Your task to perform on an android device: Add usb-c to the cart on amazon.com, then select checkout. Image 0: 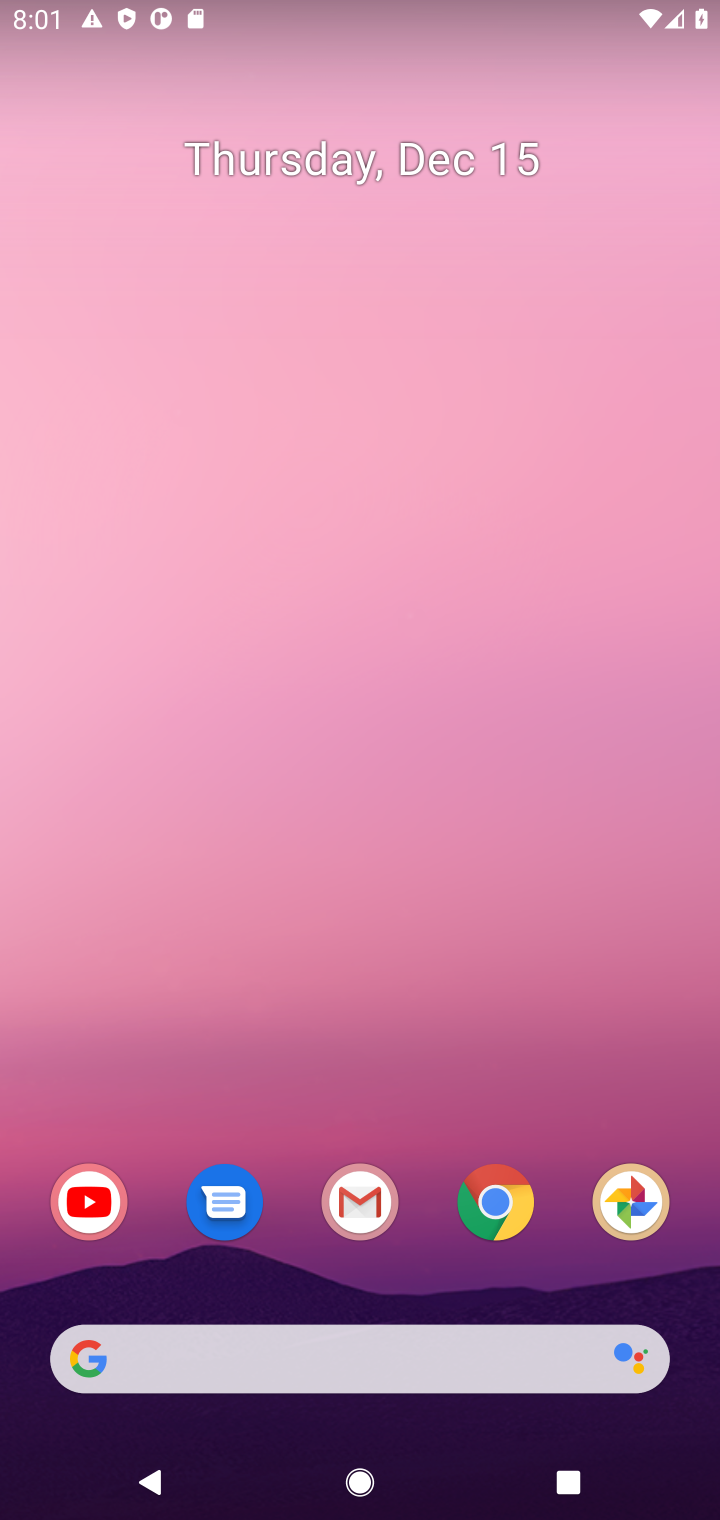
Step 0: click (503, 1221)
Your task to perform on an android device: Add usb-c to the cart on amazon.com, then select checkout. Image 1: 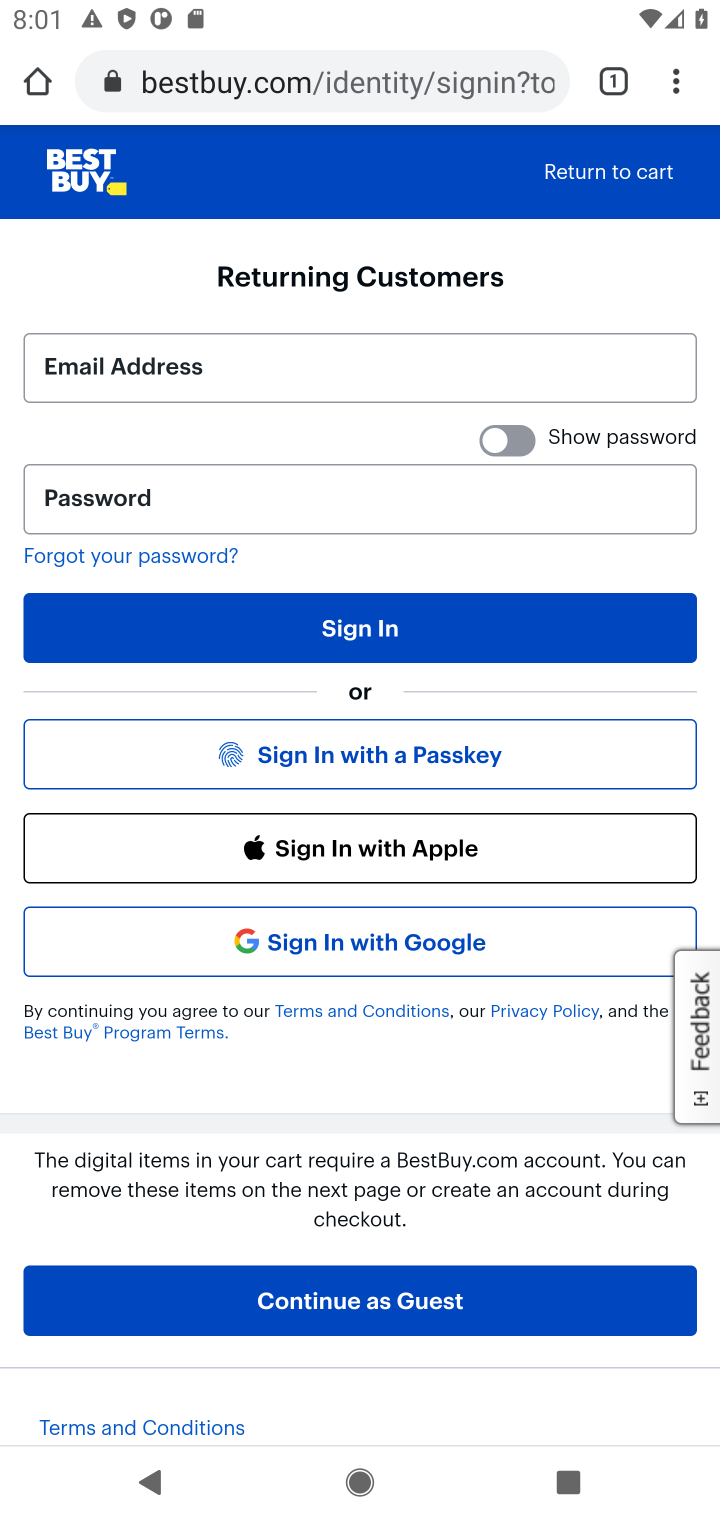
Step 1: click (228, 77)
Your task to perform on an android device: Add usb-c to the cart on amazon.com, then select checkout. Image 2: 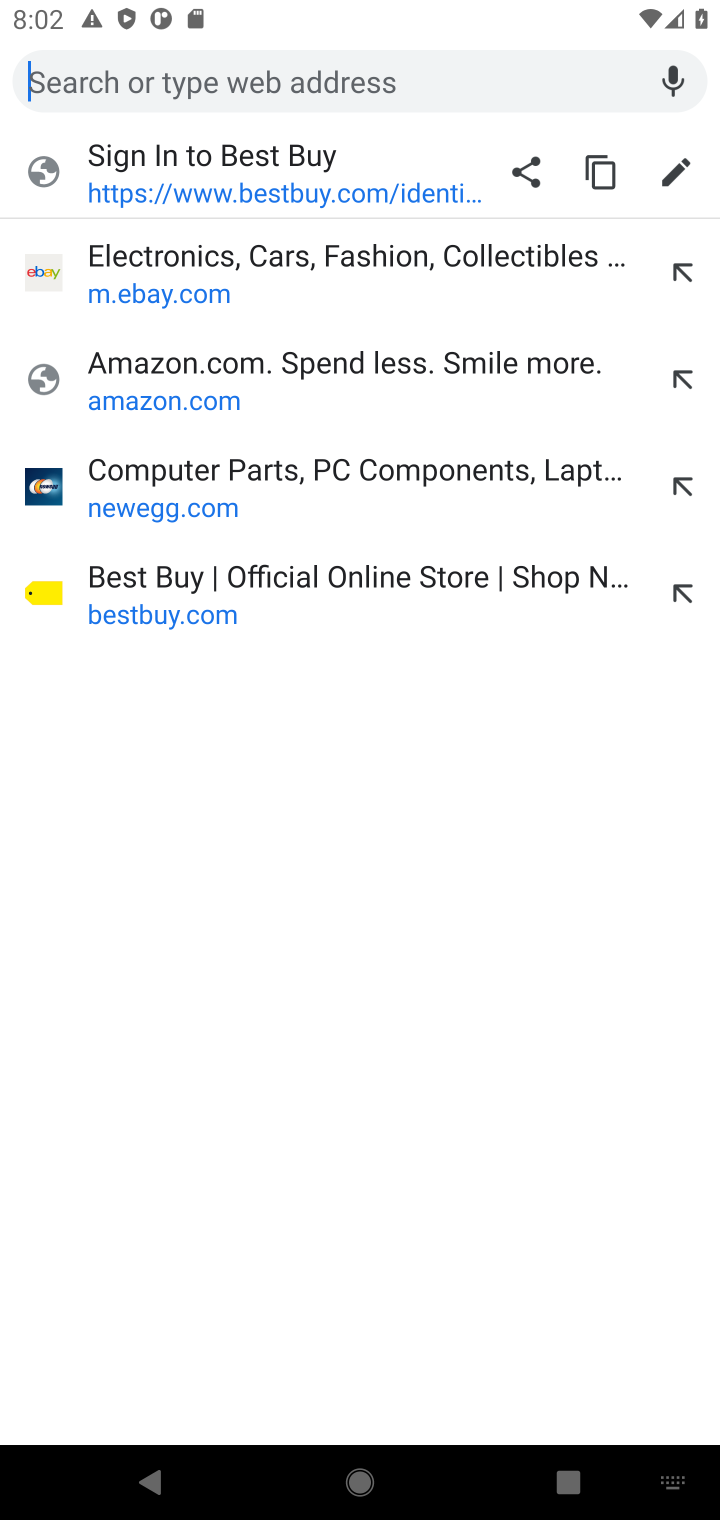
Step 2: click (128, 368)
Your task to perform on an android device: Add usb-c to the cart on amazon.com, then select checkout. Image 3: 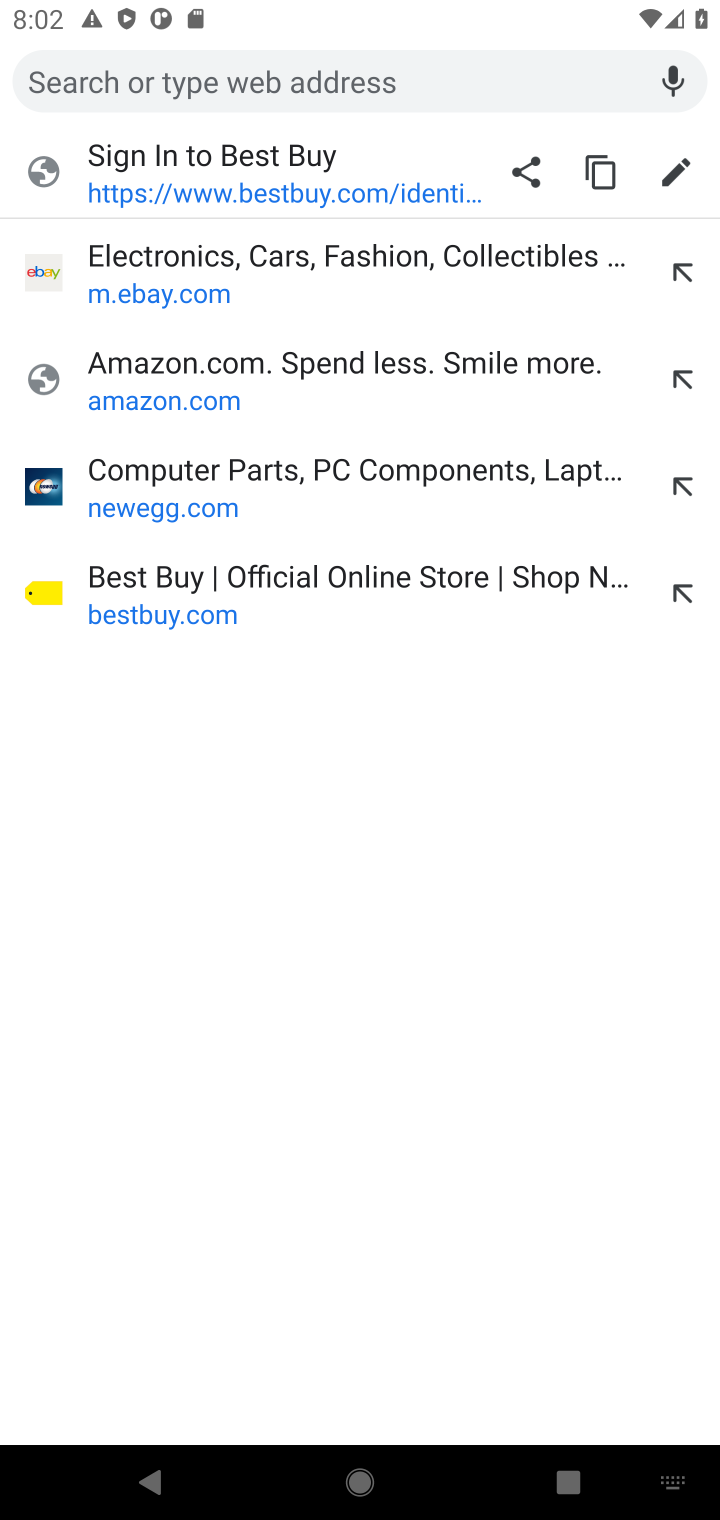
Step 3: click (157, 402)
Your task to perform on an android device: Add usb-c to the cart on amazon.com, then select checkout. Image 4: 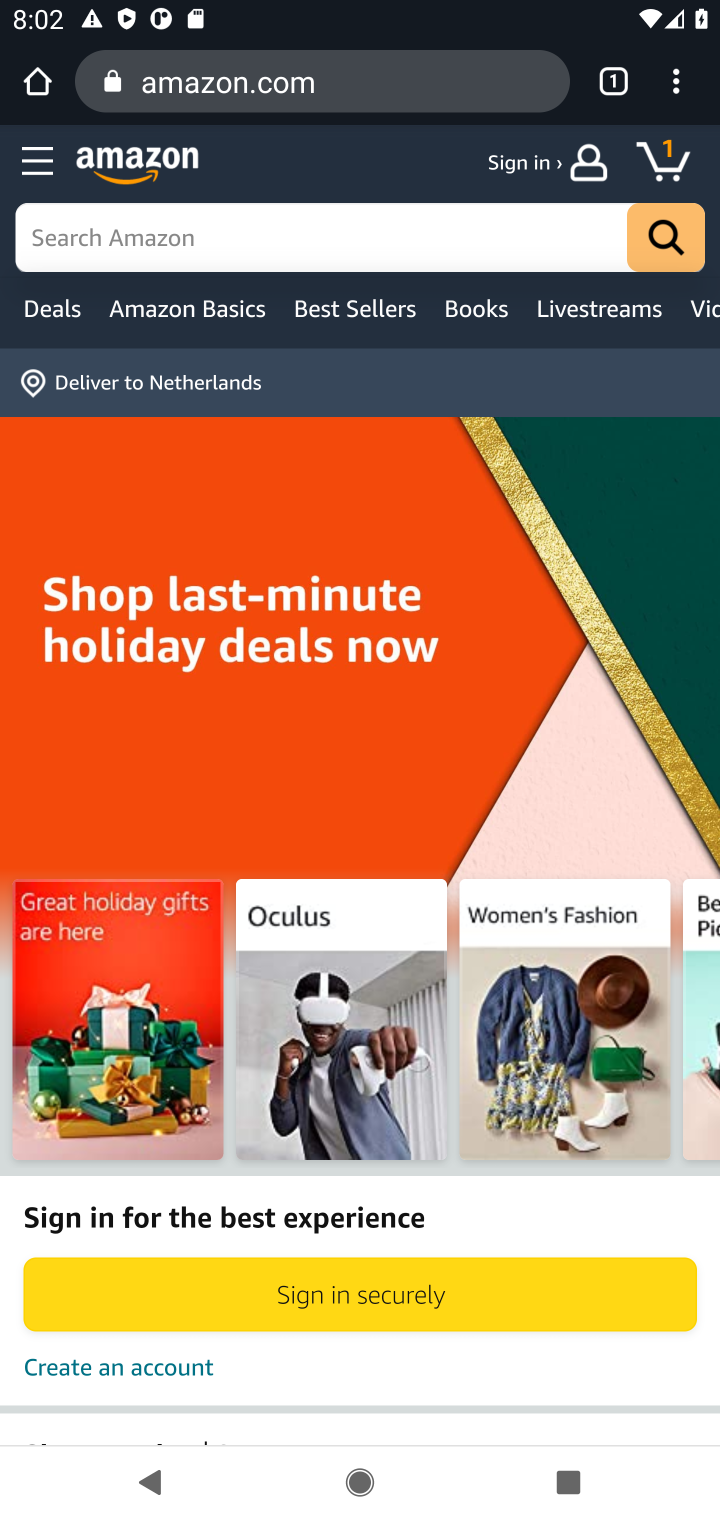
Step 4: click (165, 241)
Your task to perform on an android device: Add usb-c to the cart on amazon.com, then select checkout. Image 5: 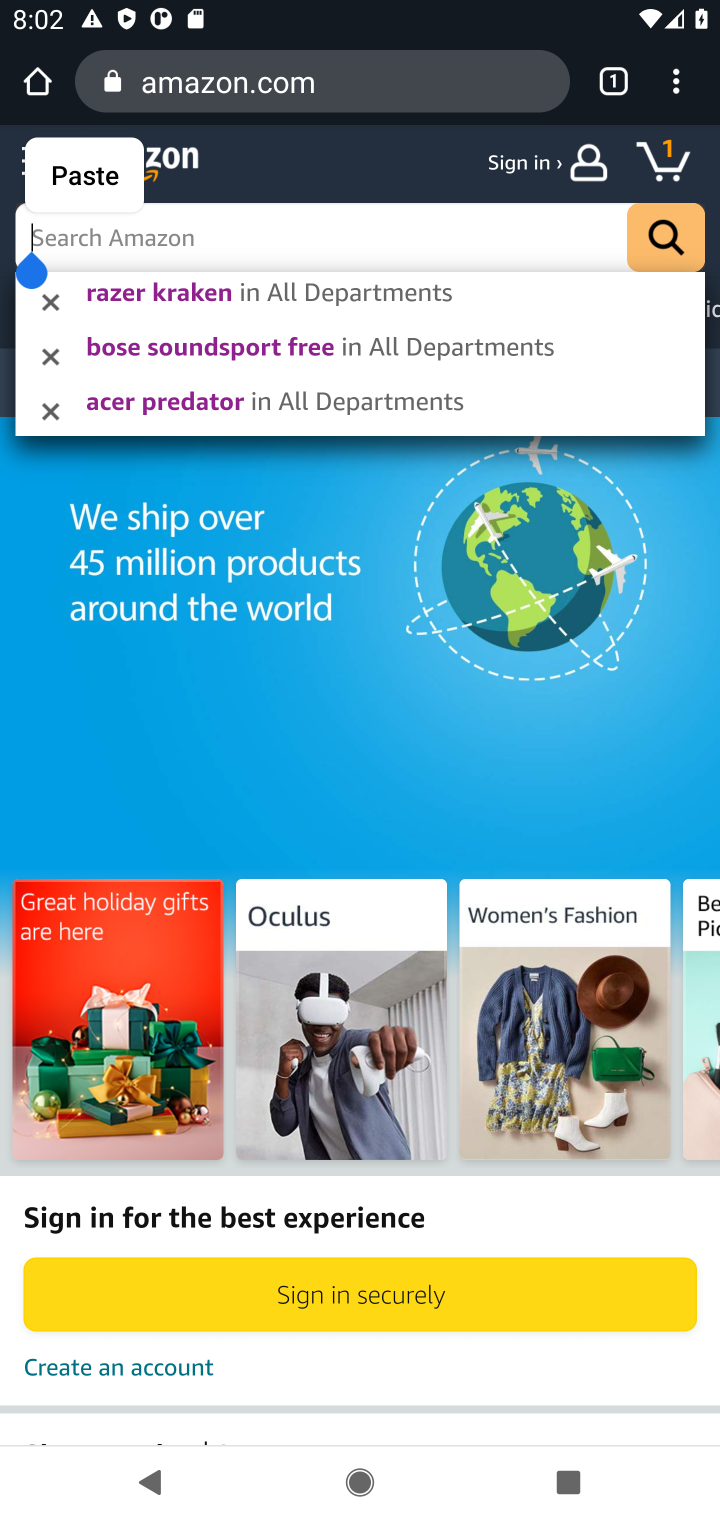
Step 5: type "usb-c"
Your task to perform on an android device: Add usb-c to the cart on amazon.com, then select checkout. Image 6: 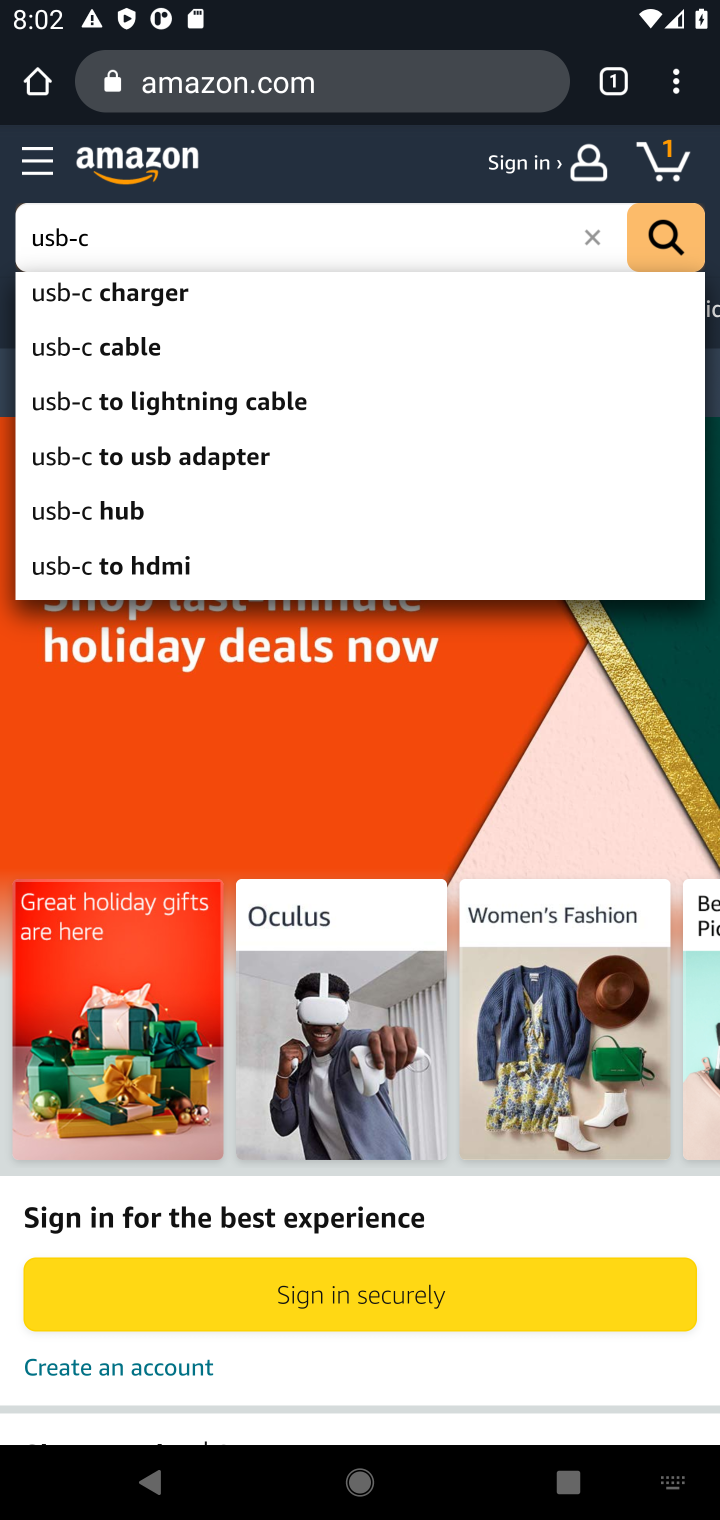
Step 6: click (79, 293)
Your task to perform on an android device: Add usb-c to the cart on amazon.com, then select checkout. Image 7: 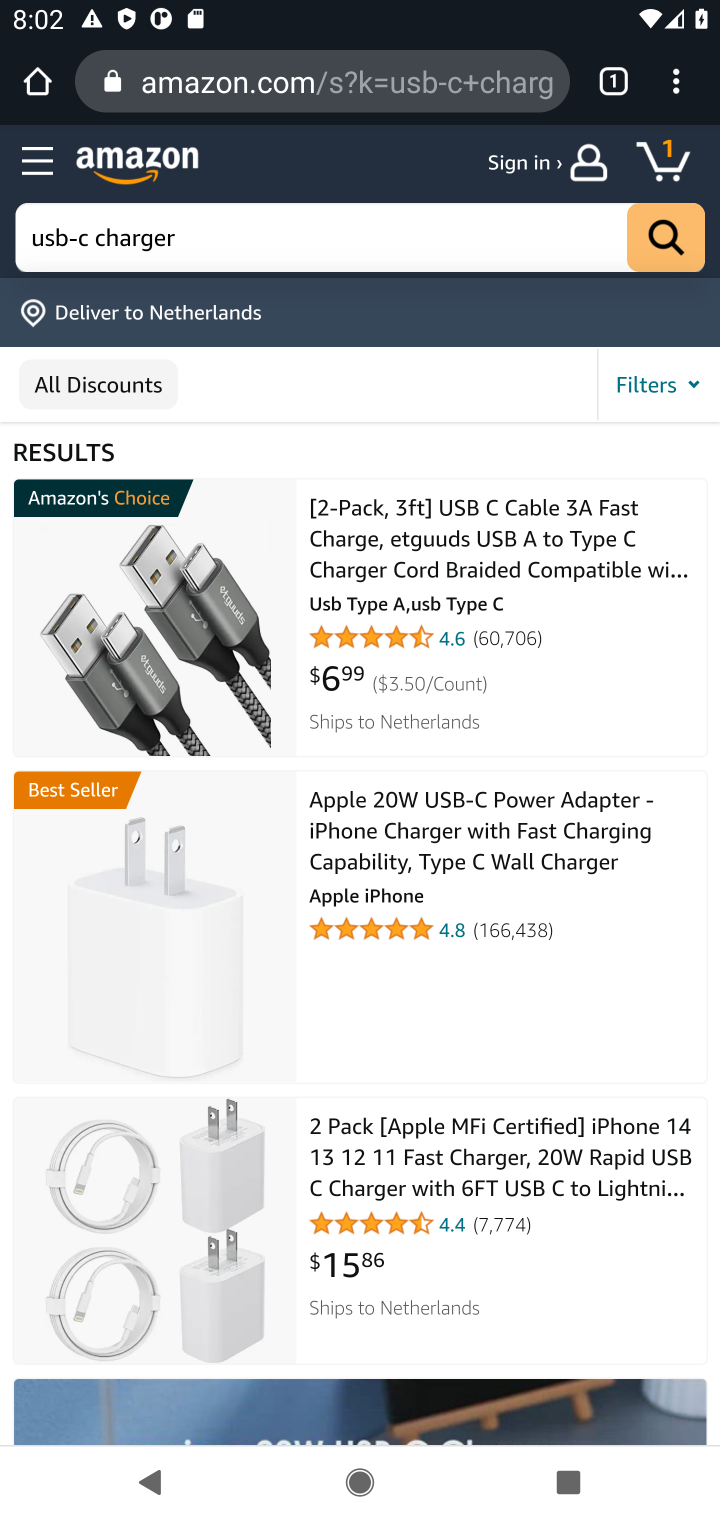
Step 7: click (437, 565)
Your task to perform on an android device: Add usb-c to the cart on amazon.com, then select checkout. Image 8: 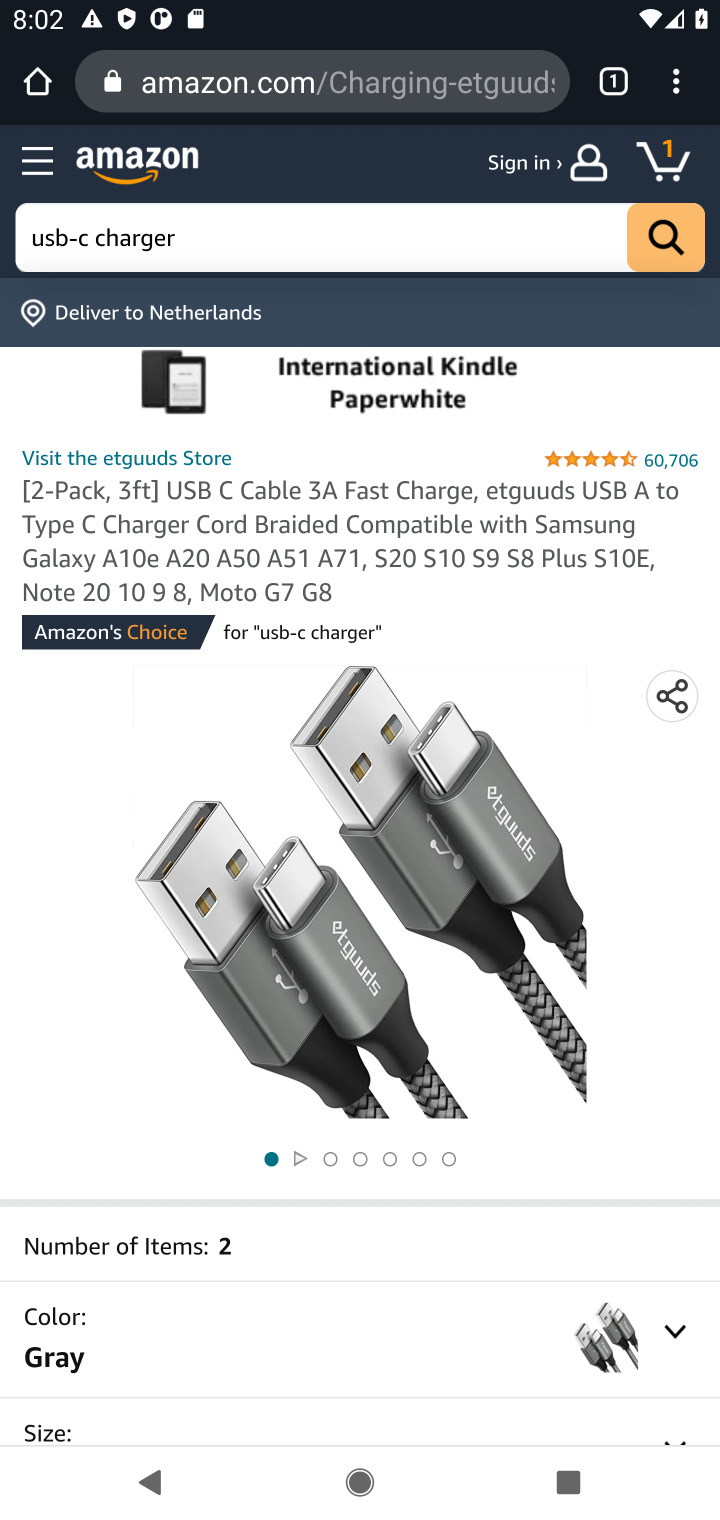
Step 8: drag from (215, 908) to (196, 525)
Your task to perform on an android device: Add usb-c to the cart on amazon.com, then select checkout. Image 9: 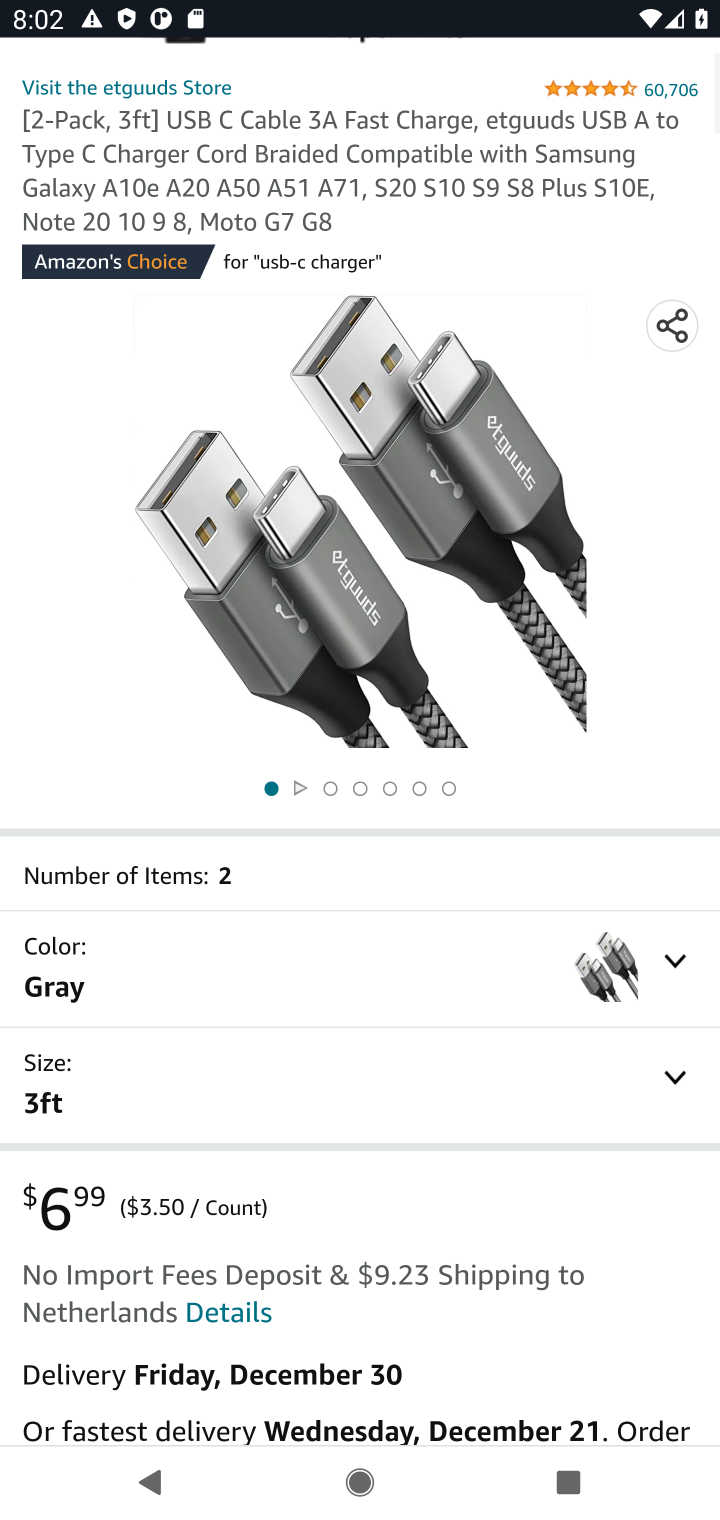
Step 9: drag from (207, 992) to (253, 452)
Your task to perform on an android device: Add usb-c to the cart on amazon.com, then select checkout. Image 10: 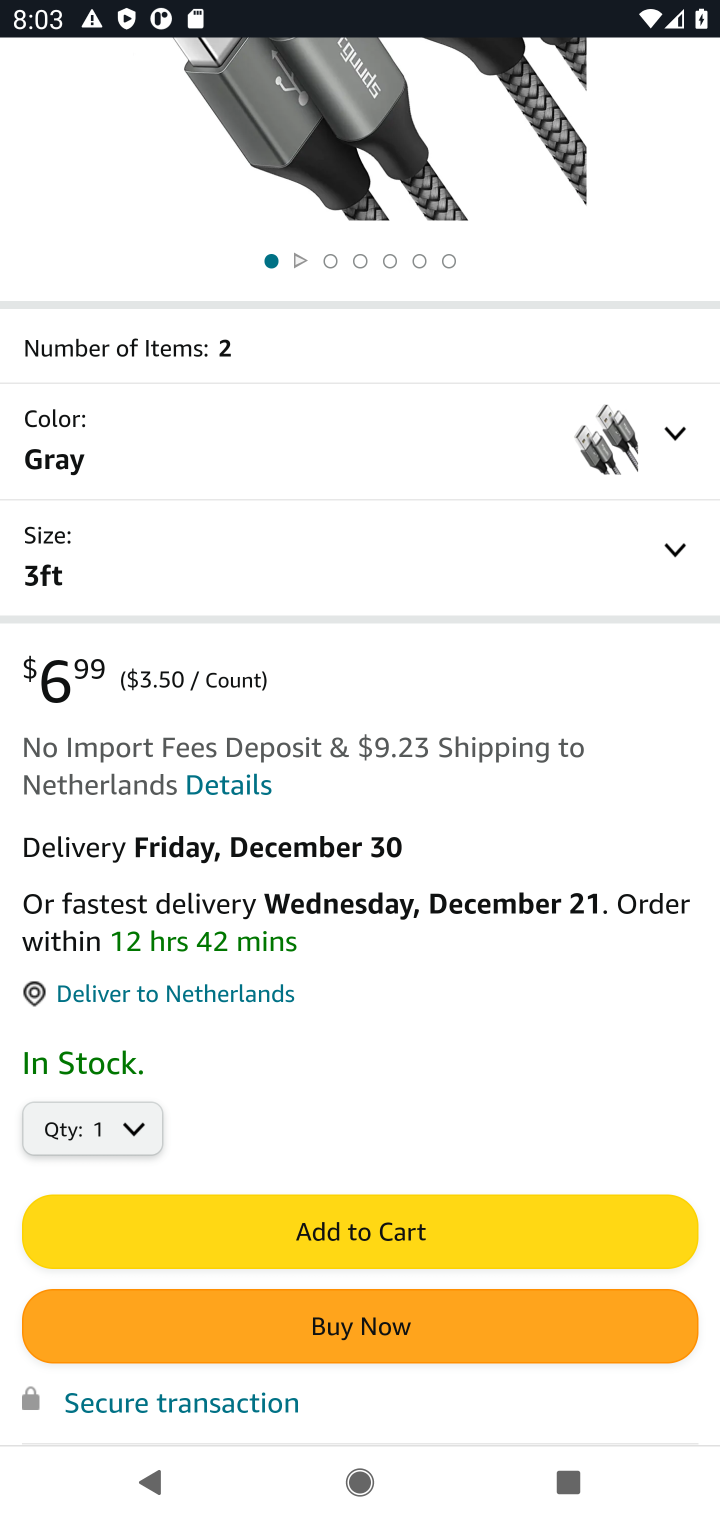
Step 10: click (369, 1213)
Your task to perform on an android device: Add usb-c to the cart on amazon.com, then select checkout. Image 11: 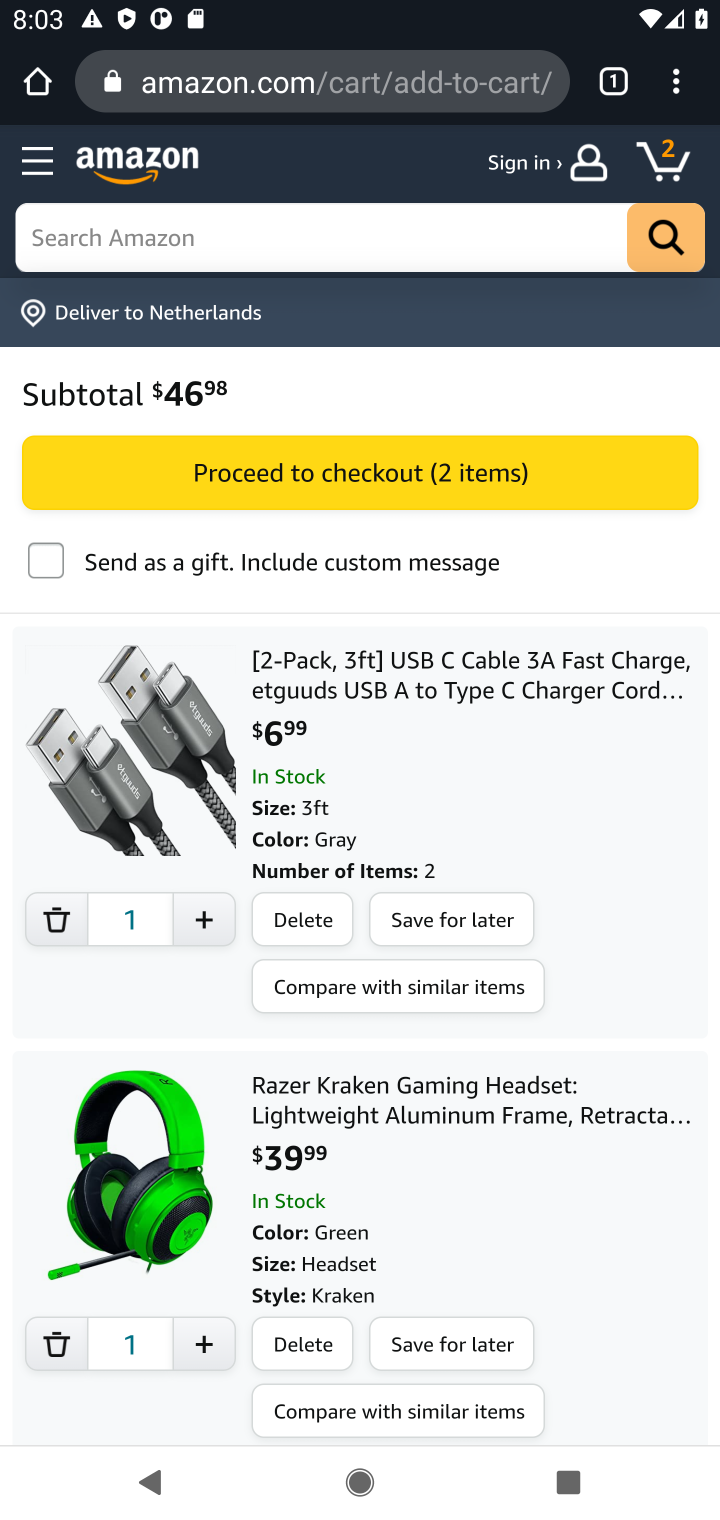
Step 11: click (290, 465)
Your task to perform on an android device: Add usb-c to the cart on amazon.com, then select checkout. Image 12: 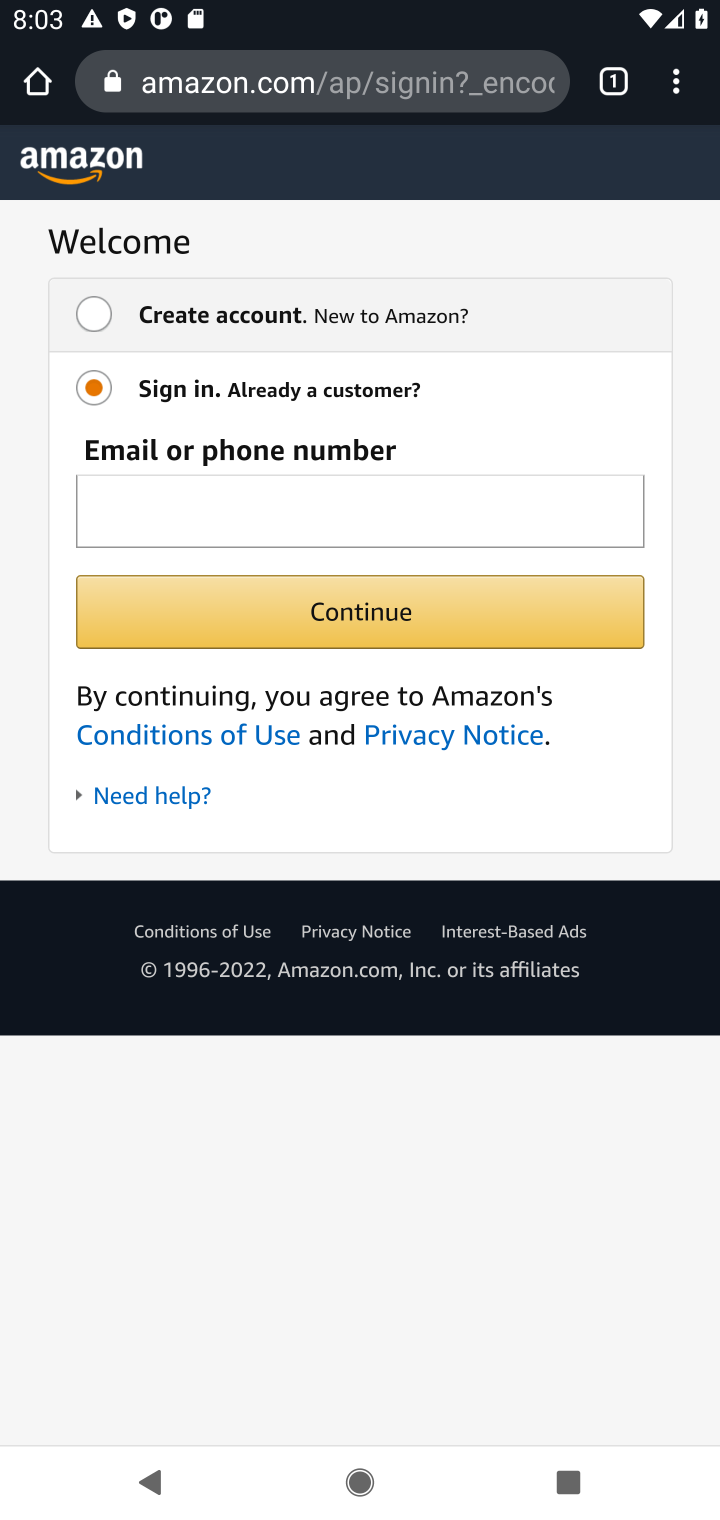
Step 12: task complete